Your task to perform on an android device: Go to location settings Image 0: 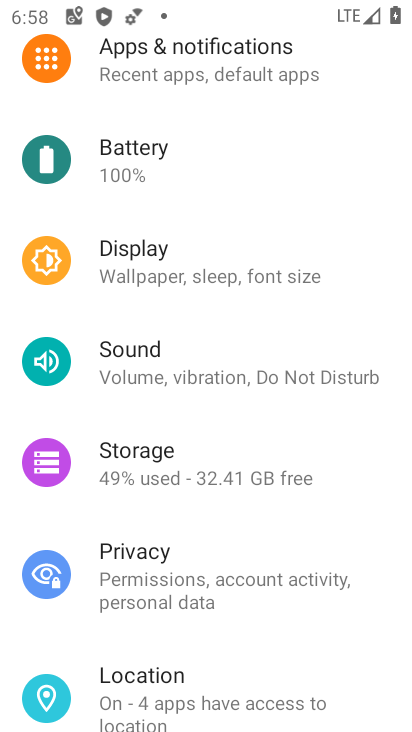
Step 0: click (149, 691)
Your task to perform on an android device: Go to location settings Image 1: 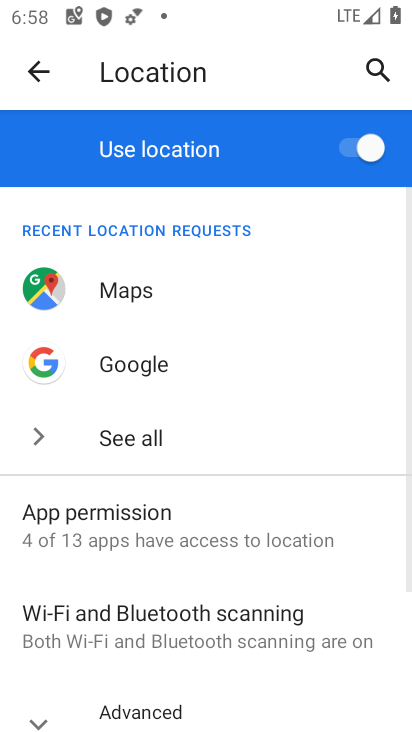
Step 1: click (278, 221)
Your task to perform on an android device: Go to location settings Image 2: 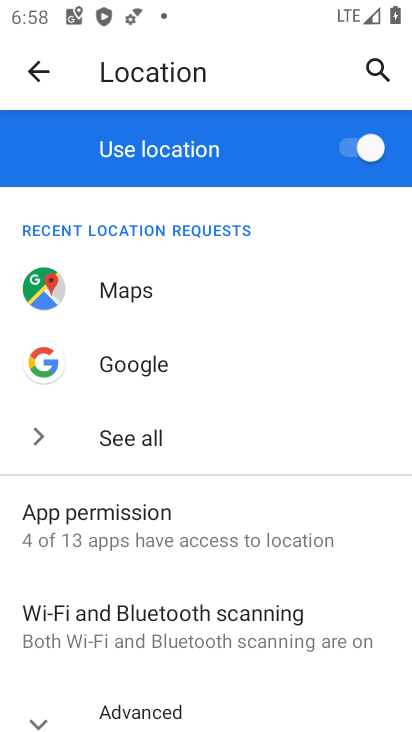
Step 2: task complete